Your task to perform on an android device: Clear the shopping cart on target.com. Search for "usb-c to usb-b" on target.com, select the first entry, and add it to the cart. Image 0: 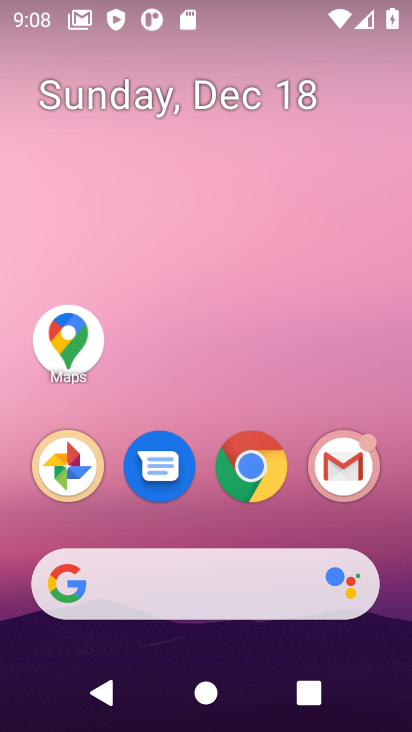
Step 0: click (247, 476)
Your task to perform on an android device: Clear the shopping cart on target.com. Search for "usb-c to usb-b" on target.com, select the first entry, and add it to the cart. Image 1: 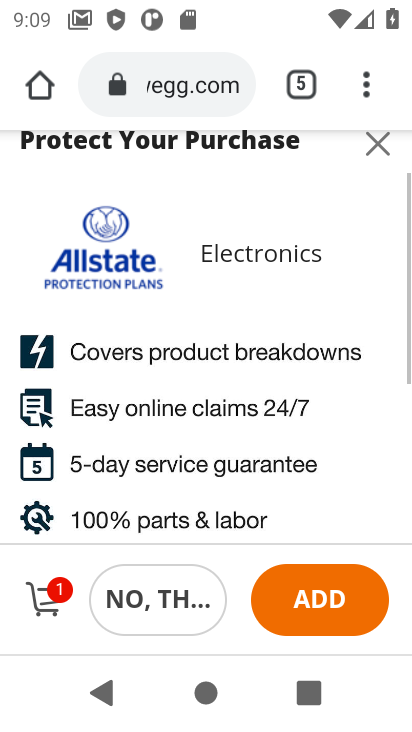
Step 1: click (180, 92)
Your task to perform on an android device: Clear the shopping cart on target.com. Search for "usb-c to usb-b" on target.com, select the first entry, and add it to the cart. Image 2: 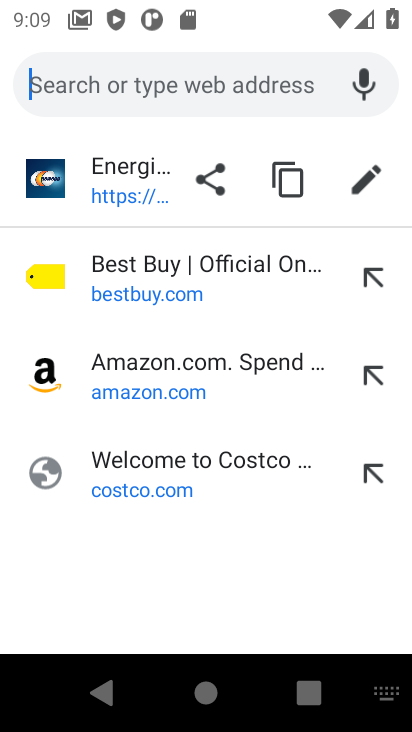
Step 2: type "TARGET"
Your task to perform on an android device: Clear the shopping cart on target.com. Search for "usb-c to usb-b" on target.com, select the first entry, and add it to the cart. Image 3: 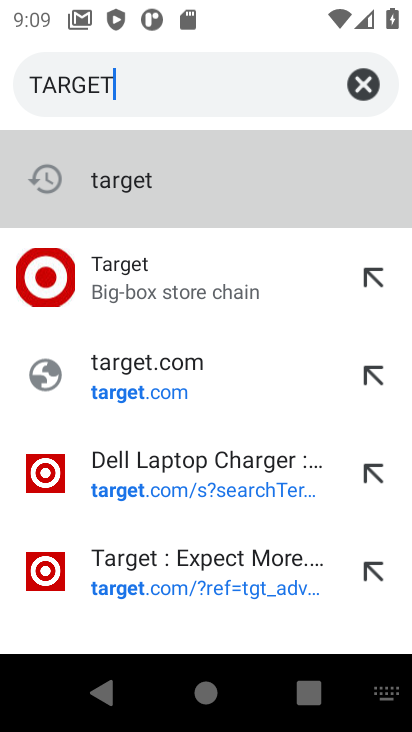
Step 3: click (162, 270)
Your task to perform on an android device: Clear the shopping cart on target.com. Search for "usb-c to usb-b" on target.com, select the first entry, and add it to the cart. Image 4: 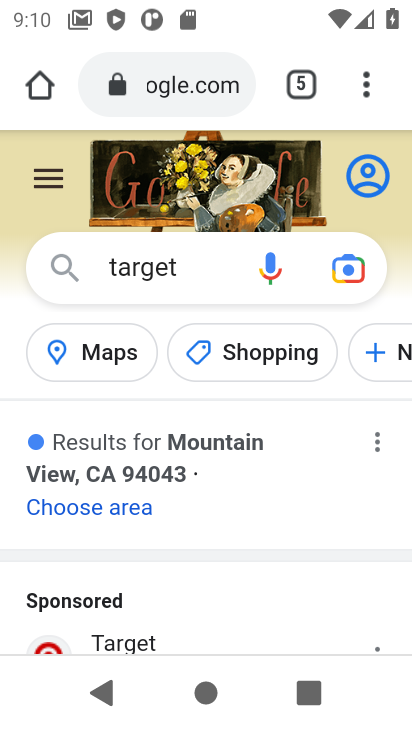
Step 4: drag from (219, 595) to (194, 232)
Your task to perform on an android device: Clear the shopping cart on target.com. Search for "usb-c to usb-b" on target.com, select the first entry, and add it to the cart. Image 5: 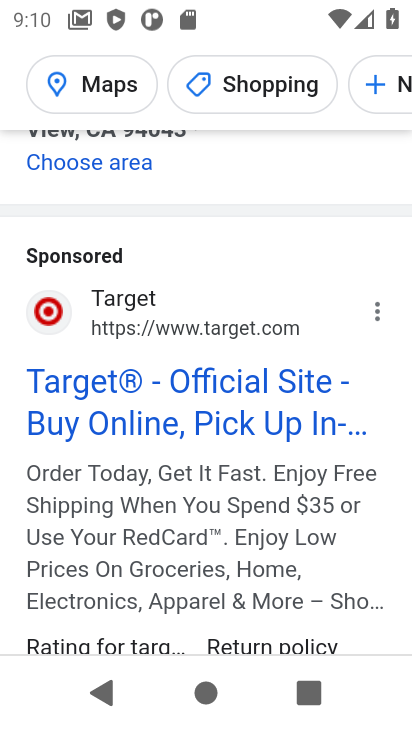
Step 5: click (201, 379)
Your task to perform on an android device: Clear the shopping cart on target.com. Search for "usb-c to usb-b" on target.com, select the first entry, and add it to the cart. Image 6: 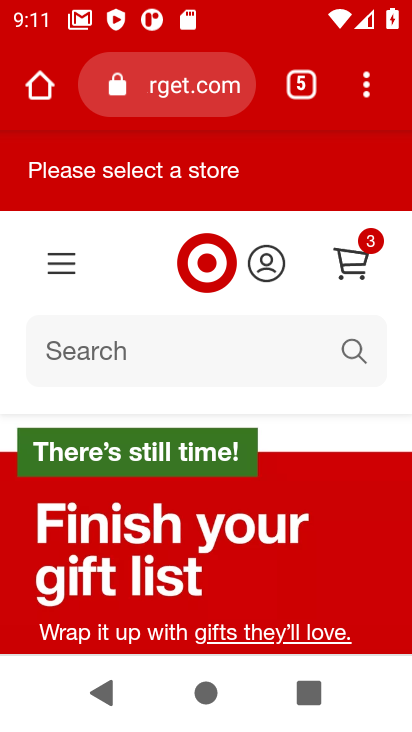
Step 6: click (363, 254)
Your task to perform on an android device: Clear the shopping cart on target.com. Search for "usb-c to usb-b" on target.com, select the first entry, and add it to the cart. Image 7: 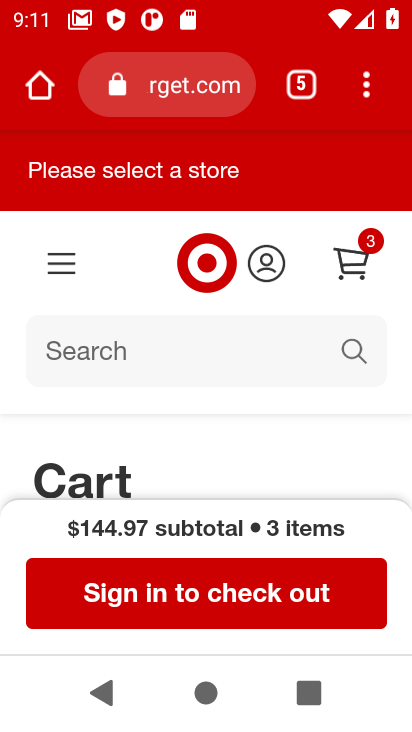
Step 7: drag from (211, 448) to (215, 132)
Your task to perform on an android device: Clear the shopping cart on target.com. Search for "usb-c to usb-b" on target.com, select the first entry, and add it to the cart. Image 8: 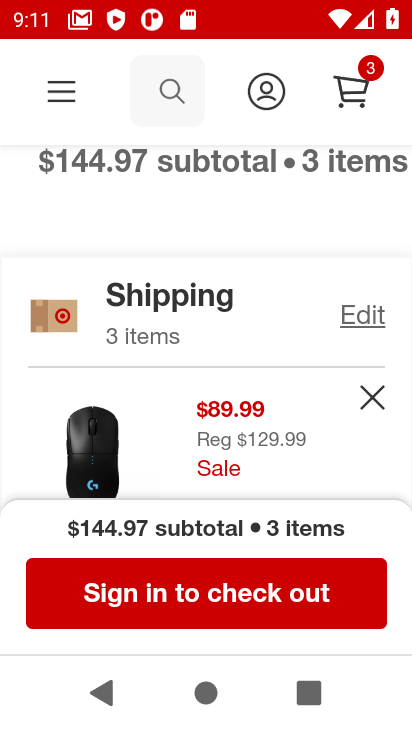
Step 8: click (370, 401)
Your task to perform on an android device: Clear the shopping cart on target.com. Search for "usb-c to usb-b" on target.com, select the first entry, and add it to the cart. Image 9: 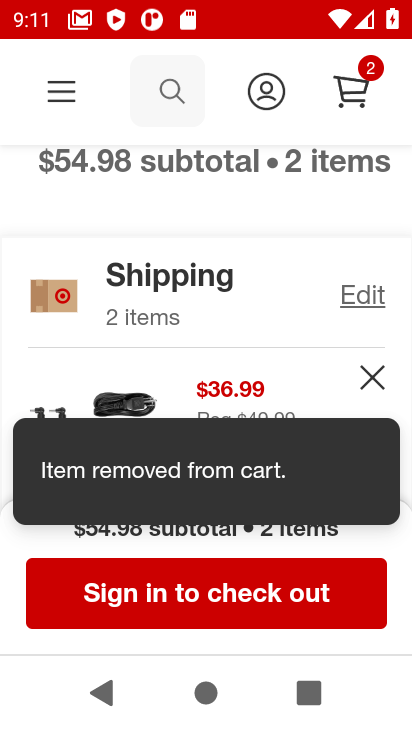
Step 9: click (368, 378)
Your task to perform on an android device: Clear the shopping cart on target.com. Search for "usb-c to usb-b" on target.com, select the first entry, and add it to the cart. Image 10: 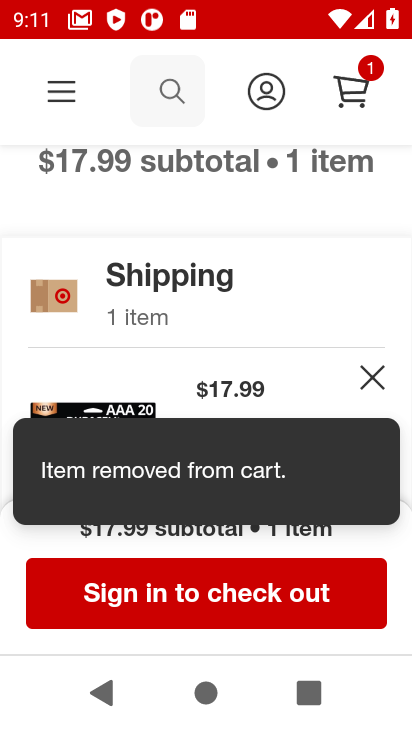
Step 10: click (368, 378)
Your task to perform on an android device: Clear the shopping cart on target.com. Search for "usb-c to usb-b" on target.com, select the first entry, and add it to the cart. Image 11: 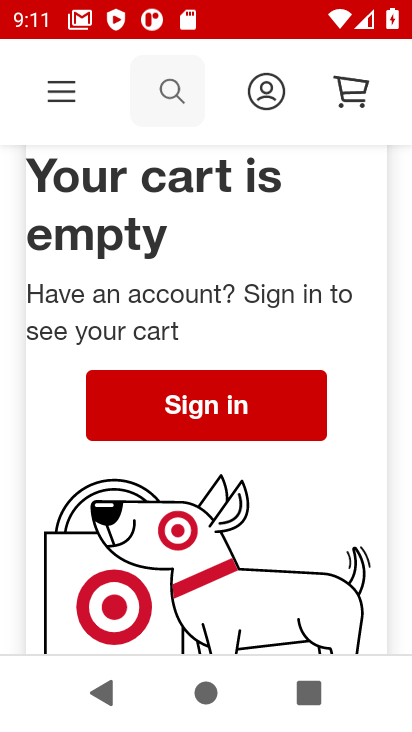
Step 11: click (170, 91)
Your task to perform on an android device: Clear the shopping cart on target.com. Search for "usb-c to usb-b" on target.com, select the first entry, and add it to the cart. Image 12: 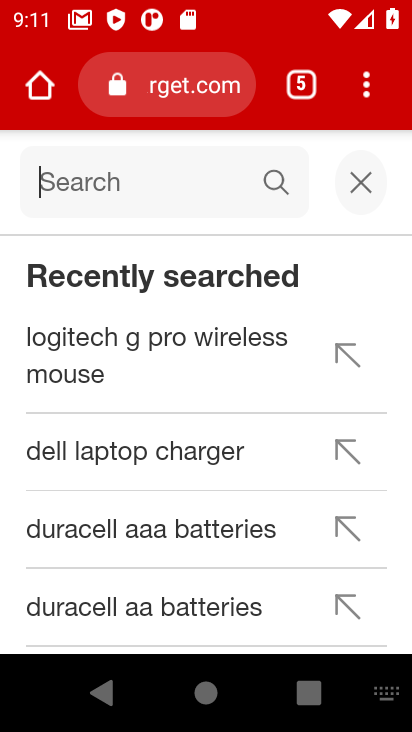
Step 12: type "usb-c to usb-b"
Your task to perform on an android device: Clear the shopping cart on target.com. Search for "usb-c to usb-b" on target.com, select the first entry, and add it to the cart. Image 13: 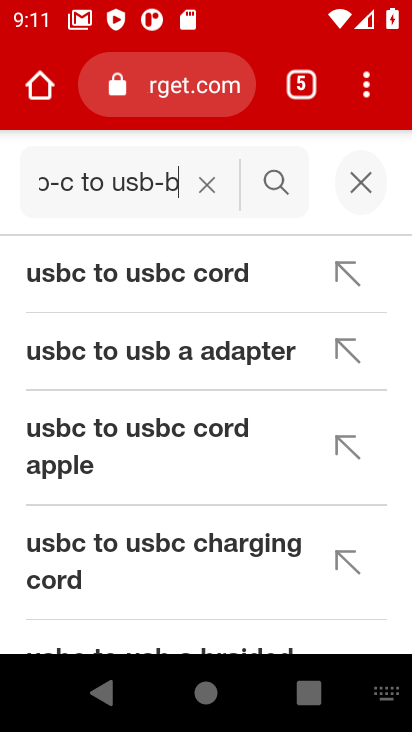
Step 13: click (113, 271)
Your task to perform on an android device: Clear the shopping cart on target.com. Search for "usb-c to usb-b" on target.com, select the first entry, and add it to the cart. Image 14: 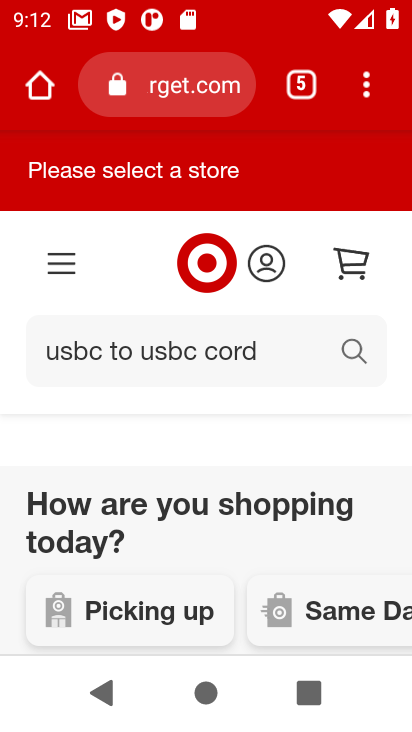
Step 14: drag from (219, 537) to (196, 154)
Your task to perform on an android device: Clear the shopping cart on target.com. Search for "usb-c to usb-b" on target.com, select the first entry, and add it to the cart. Image 15: 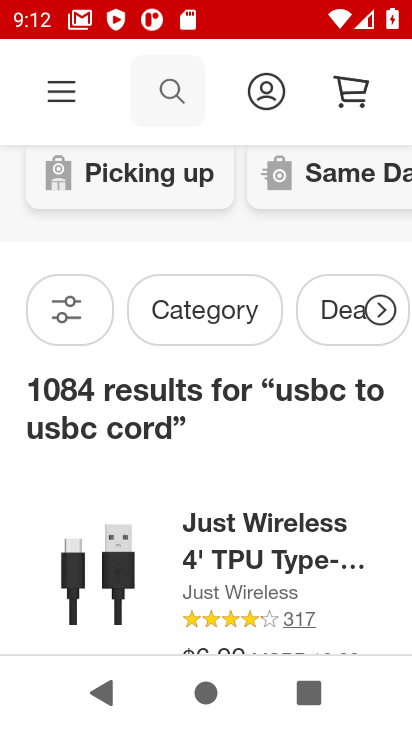
Step 15: click (300, 557)
Your task to perform on an android device: Clear the shopping cart on target.com. Search for "usb-c to usb-b" on target.com, select the first entry, and add it to the cart. Image 16: 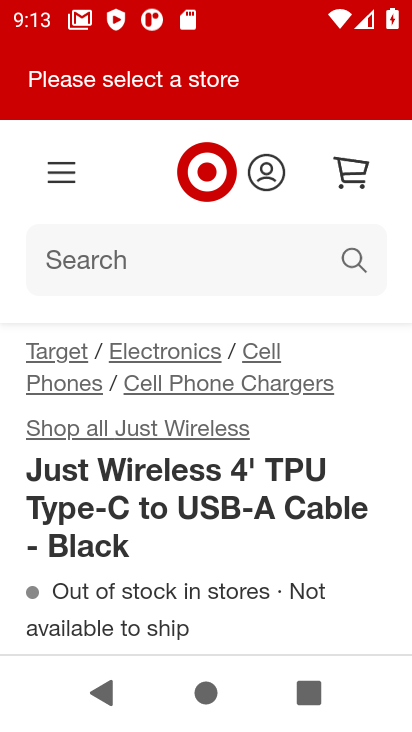
Step 16: click (218, 507)
Your task to perform on an android device: Clear the shopping cart on target.com. Search for "usb-c to usb-b" on target.com, select the first entry, and add it to the cart. Image 17: 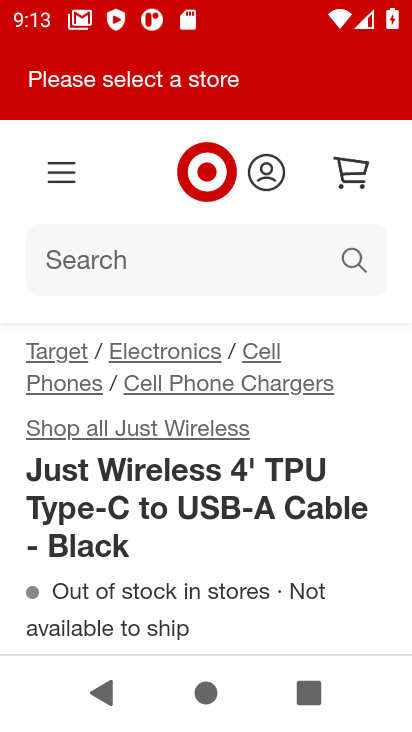
Step 17: drag from (225, 557) to (239, 113)
Your task to perform on an android device: Clear the shopping cart on target.com. Search for "usb-c to usb-b" on target.com, select the first entry, and add it to the cart. Image 18: 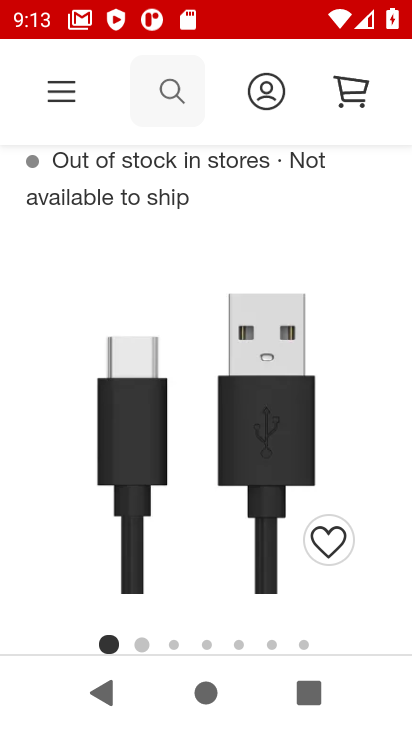
Step 18: drag from (243, 595) to (237, 212)
Your task to perform on an android device: Clear the shopping cart on target.com. Search for "usb-c to usb-b" on target.com, select the first entry, and add it to the cart. Image 19: 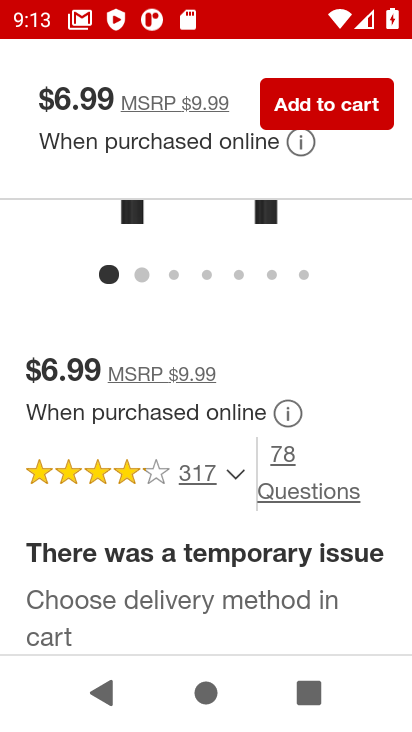
Step 19: drag from (229, 606) to (255, 170)
Your task to perform on an android device: Clear the shopping cart on target.com. Search for "usb-c to usb-b" on target.com, select the first entry, and add it to the cart. Image 20: 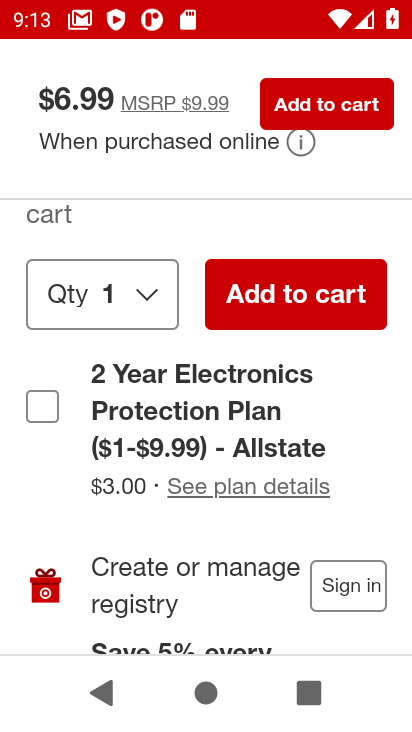
Step 20: click (271, 298)
Your task to perform on an android device: Clear the shopping cart on target.com. Search for "usb-c to usb-b" on target.com, select the first entry, and add it to the cart. Image 21: 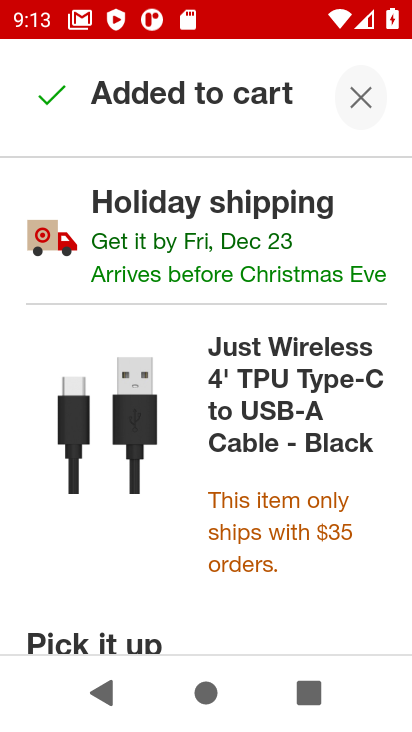
Step 21: task complete